Your task to perform on an android device: Is it going to rain today? Image 0: 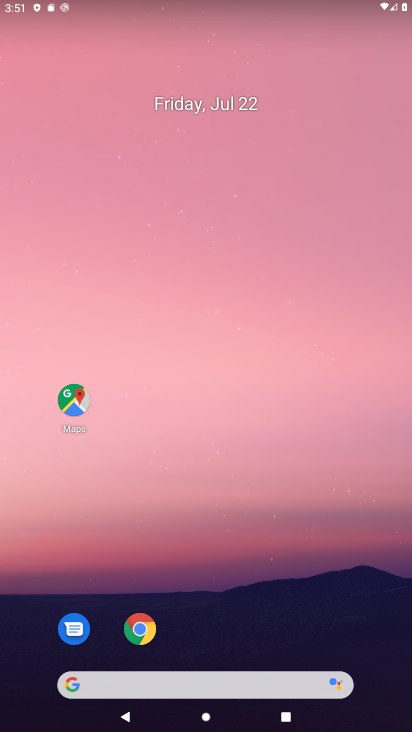
Step 0: drag from (330, 647) to (318, 14)
Your task to perform on an android device: Is it going to rain today? Image 1: 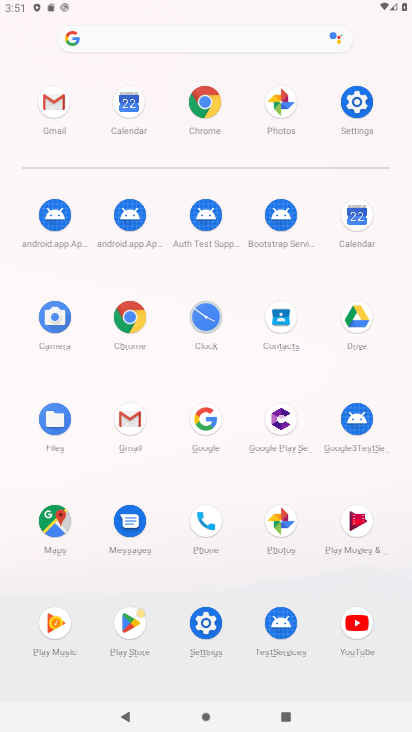
Step 1: click (125, 325)
Your task to perform on an android device: Is it going to rain today? Image 2: 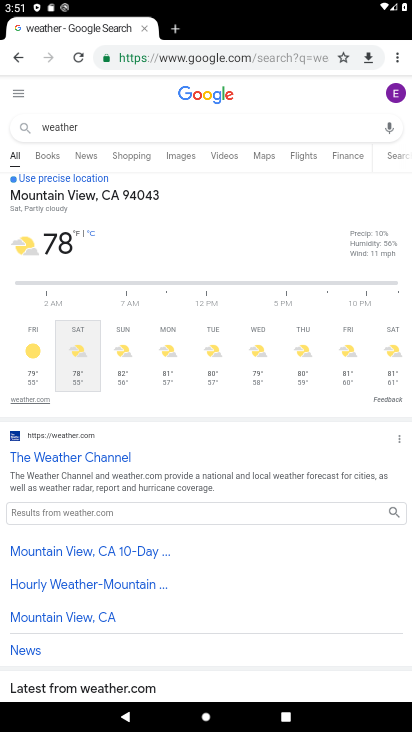
Step 2: click (246, 51)
Your task to perform on an android device: Is it going to rain today? Image 3: 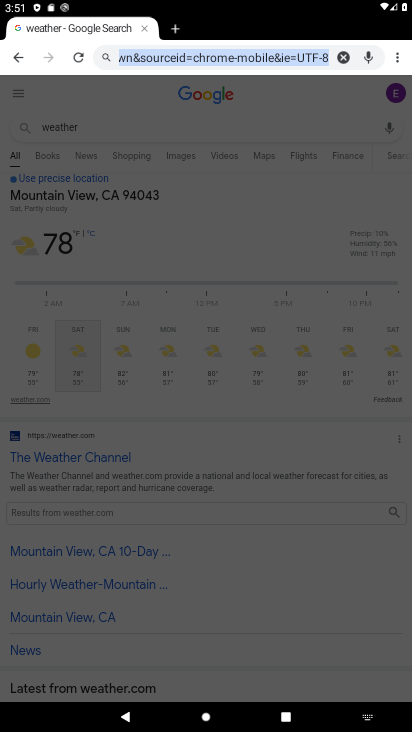
Step 3: type "weather"
Your task to perform on an android device: Is it going to rain today? Image 4: 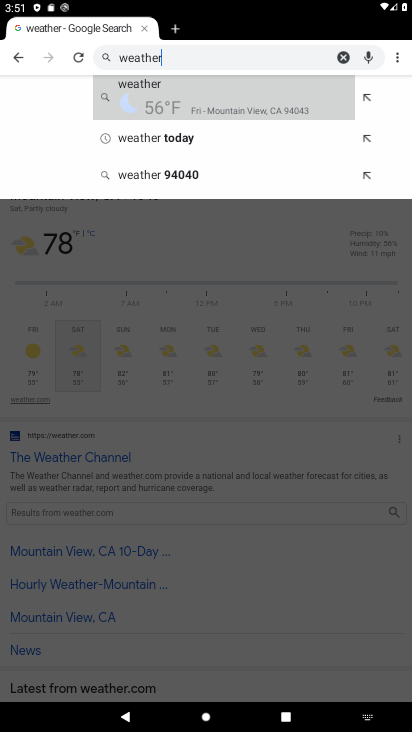
Step 4: click (133, 86)
Your task to perform on an android device: Is it going to rain today? Image 5: 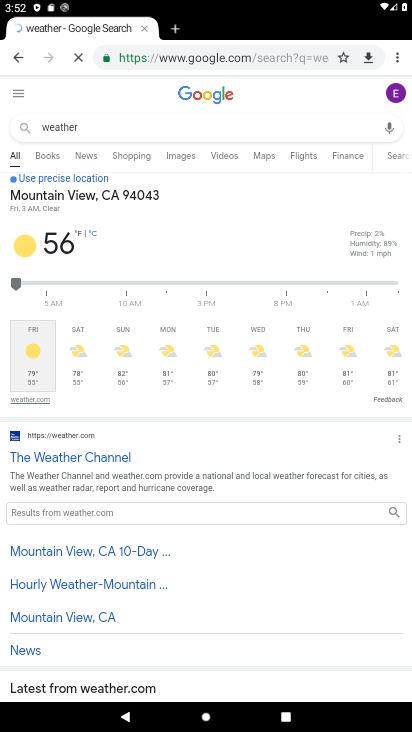
Step 5: task complete